Your task to perform on an android device: allow cookies in the chrome app Image 0: 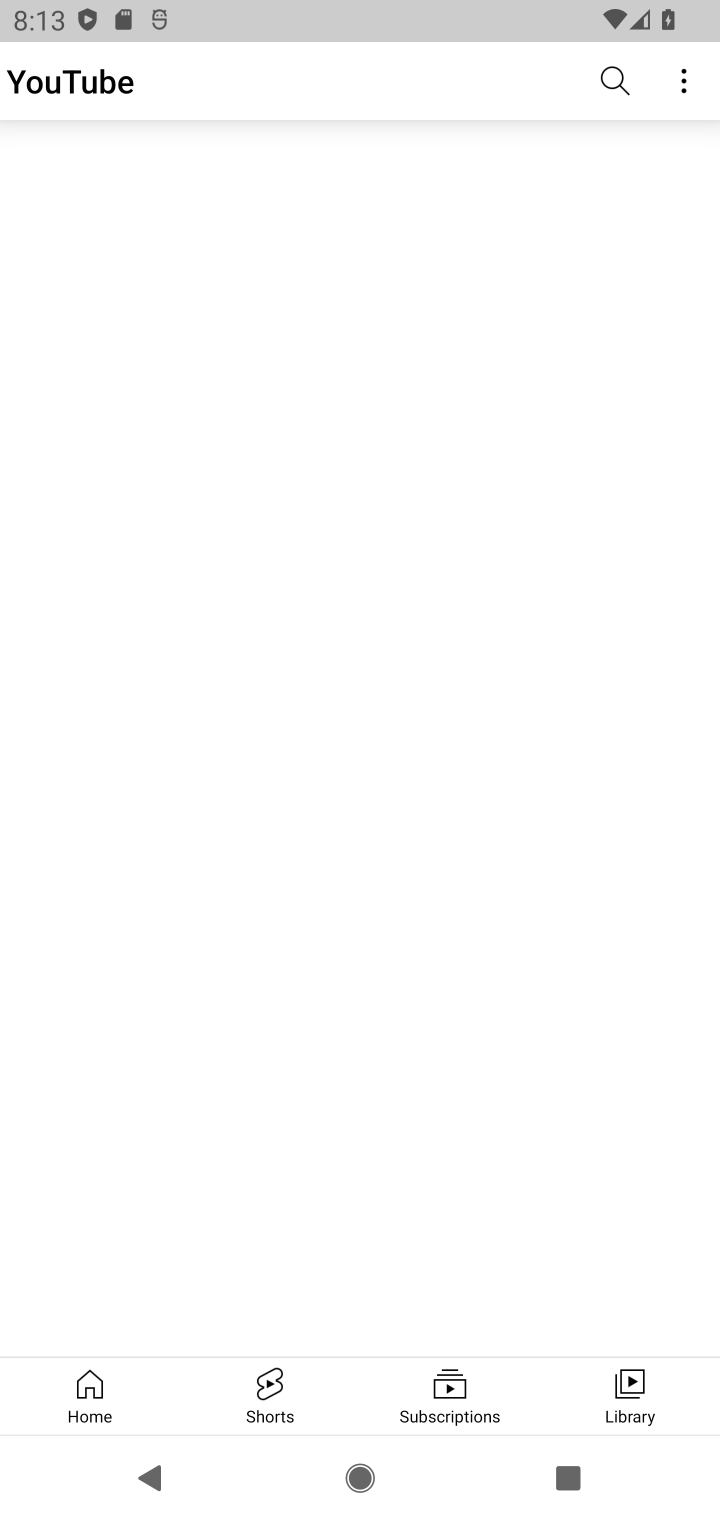
Step 0: click (433, 221)
Your task to perform on an android device: allow cookies in the chrome app Image 1: 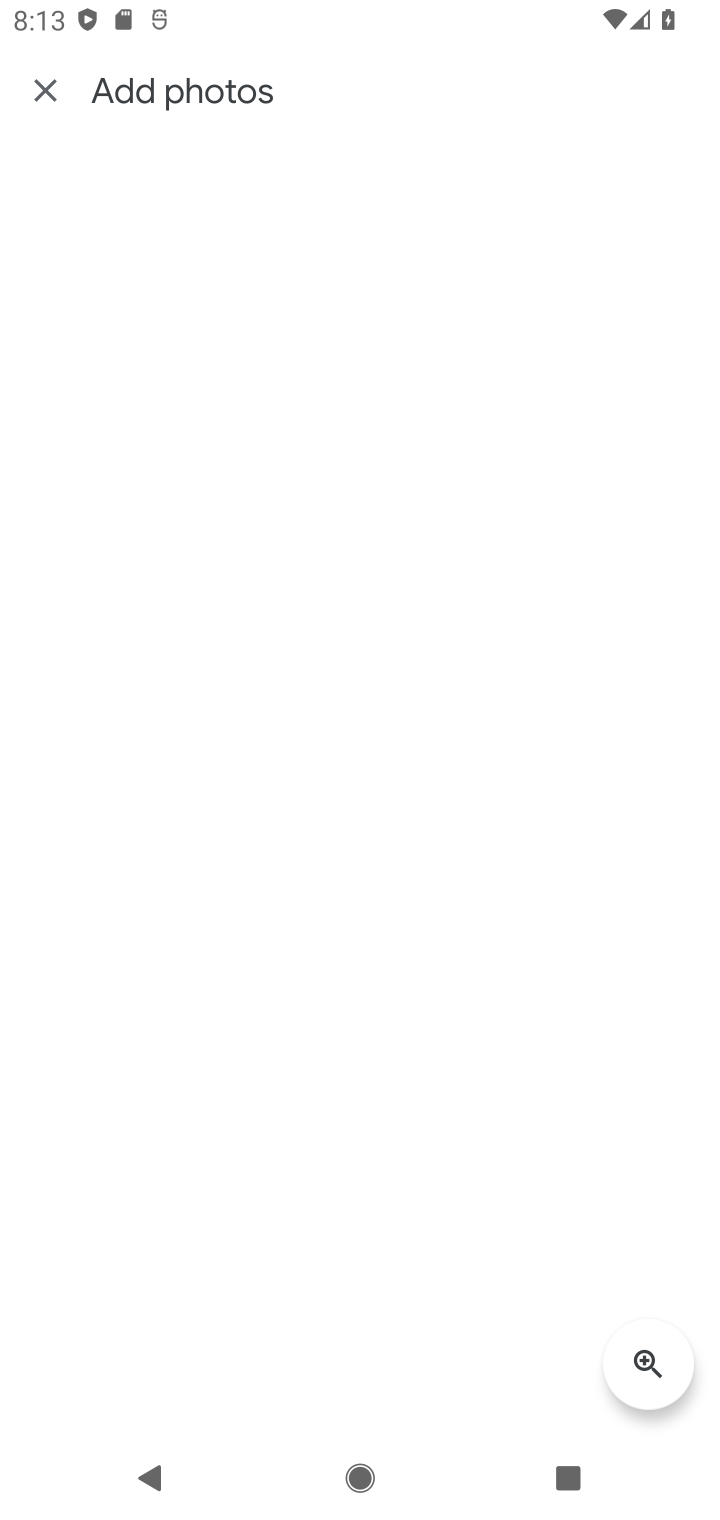
Step 1: click (398, 423)
Your task to perform on an android device: allow cookies in the chrome app Image 2: 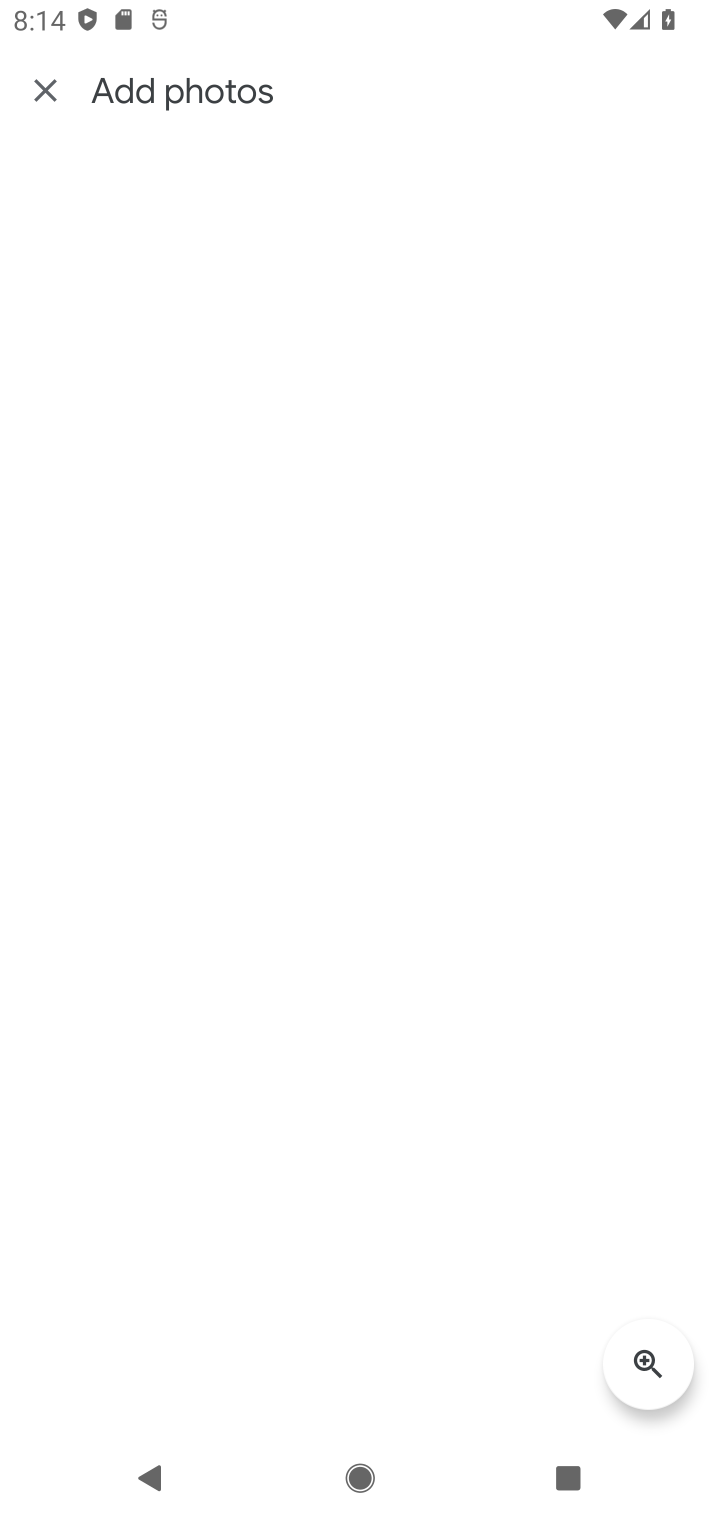
Step 2: press home button
Your task to perform on an android device: allow cookies in the chrome app Image 3: 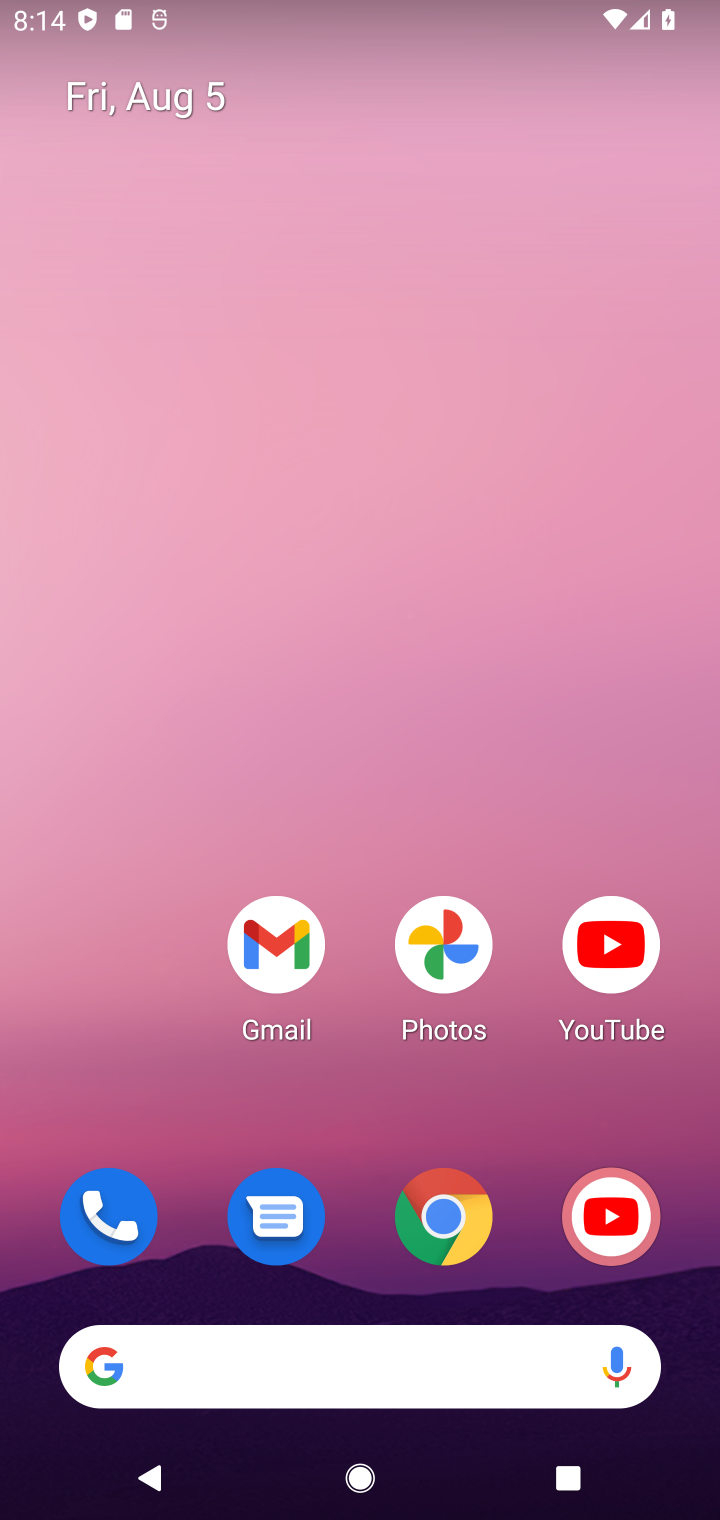
Step 3: drag from (347, 1198) to (391, 287)
Your task to perform on an android device: allow cookies in the chrome app Image 4: 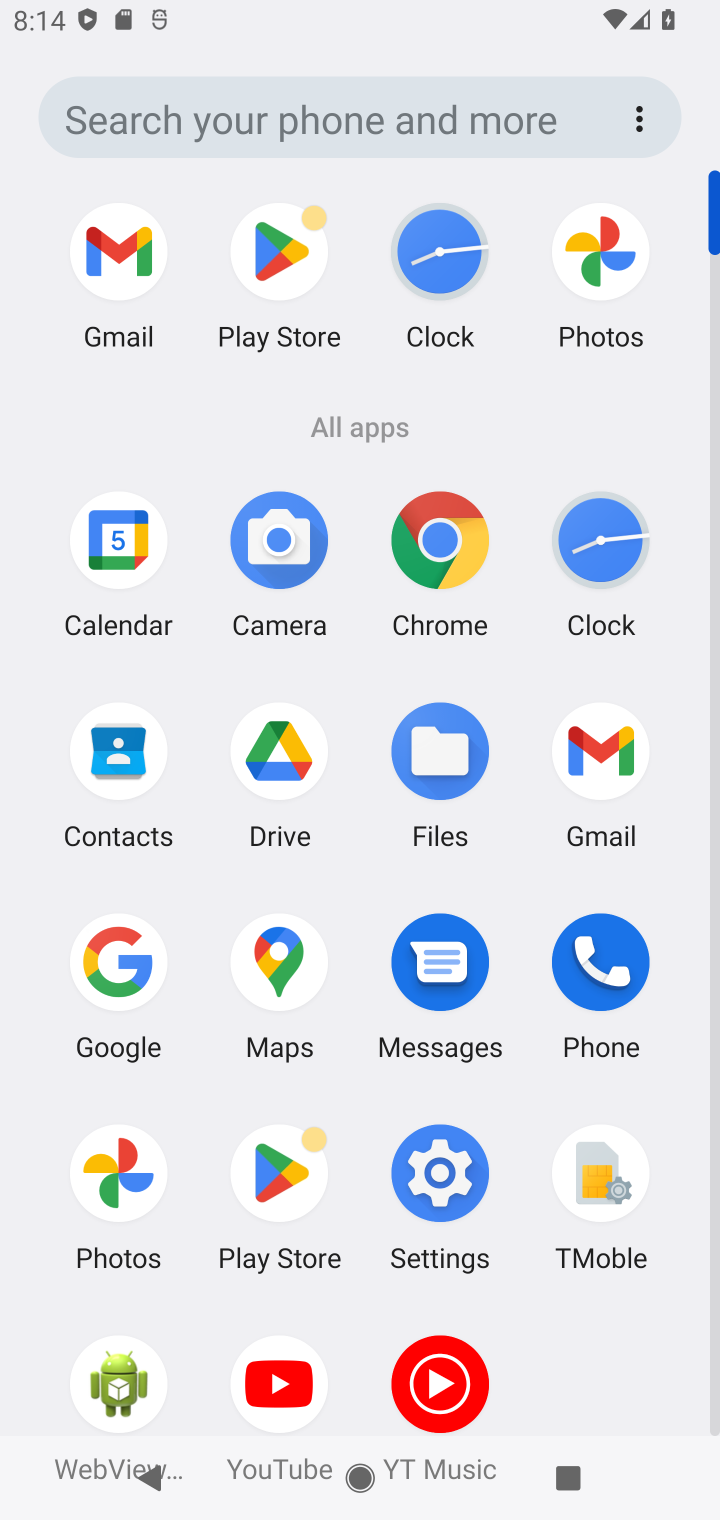
Step 4: click (431, 539)
Your task to perform on an android device: allow cookies in the chrome app Image 5: 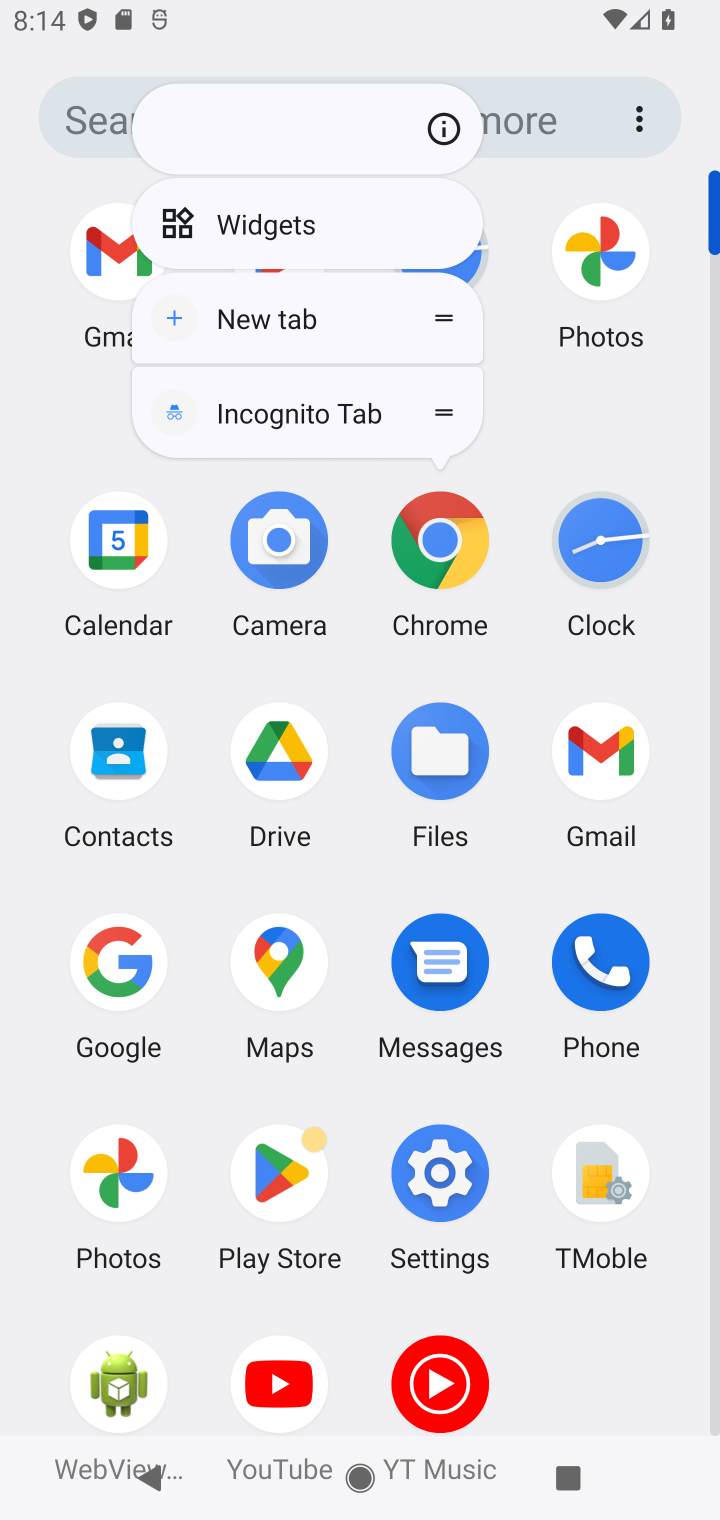
Step 5: click (446, 115)
Your task to perform on an android device: allow cookies in the chrome app Image 6: 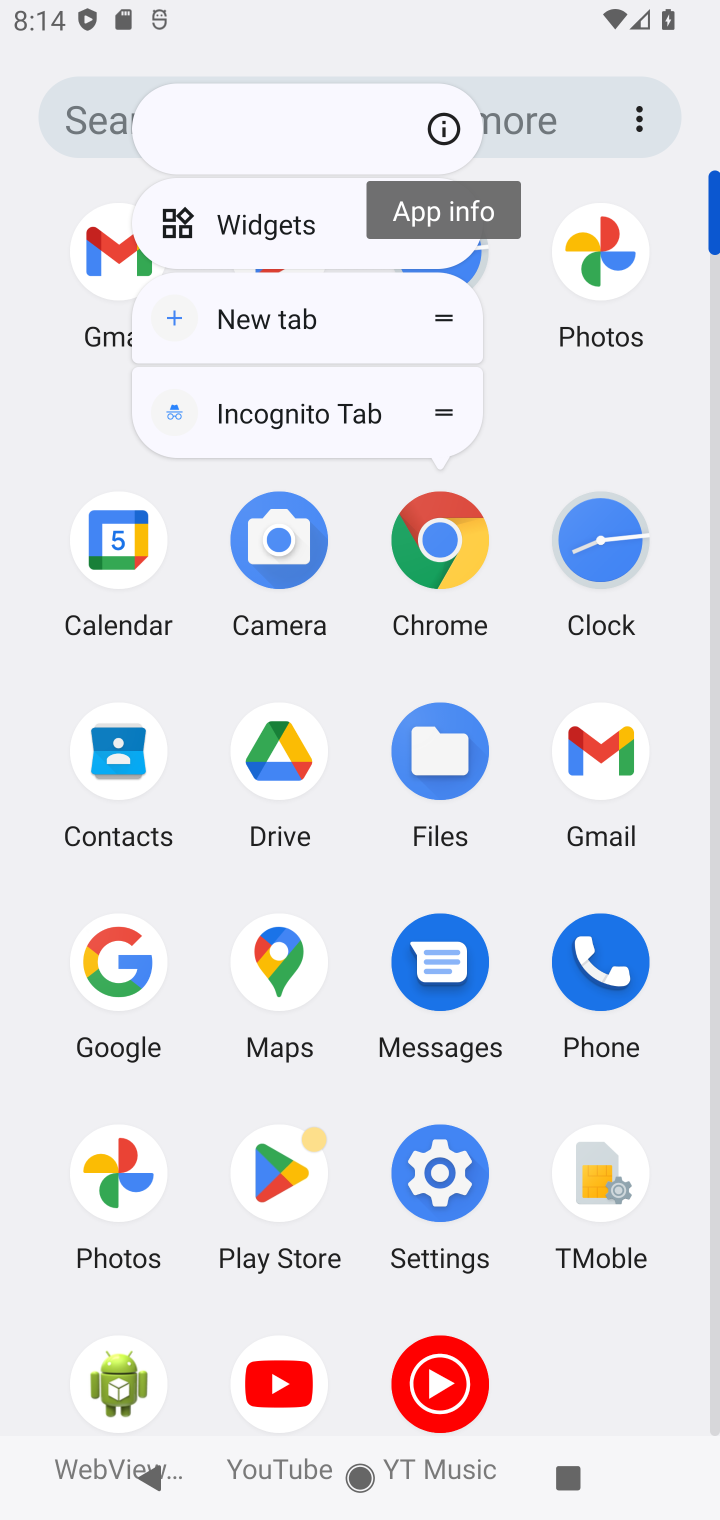
Step 6: click (446, 115)
Your task to perform on an android device: allow cookies in the chrome app Image 7: 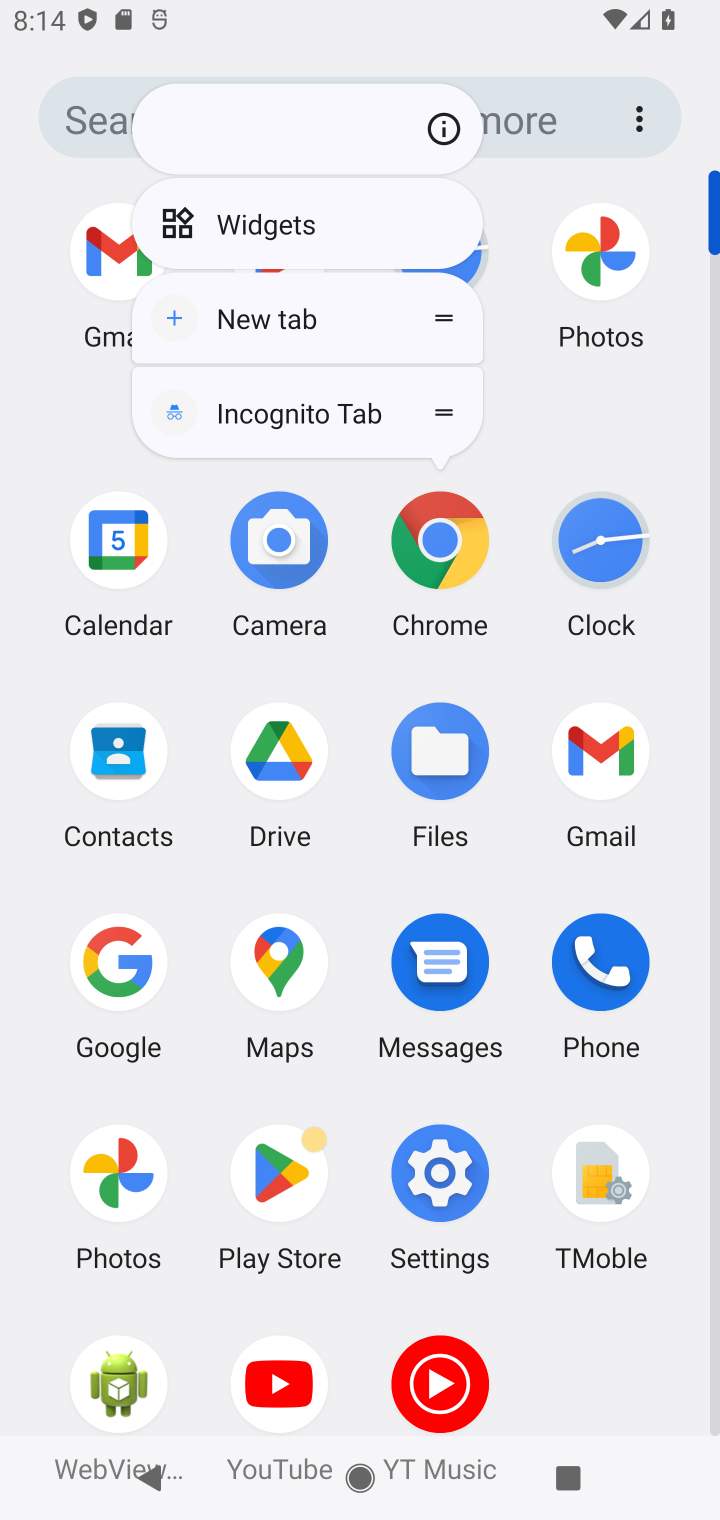
Step 7: click (441, 127)
Your task to perform on an android device: allow cookies in the chrome app Image 8: 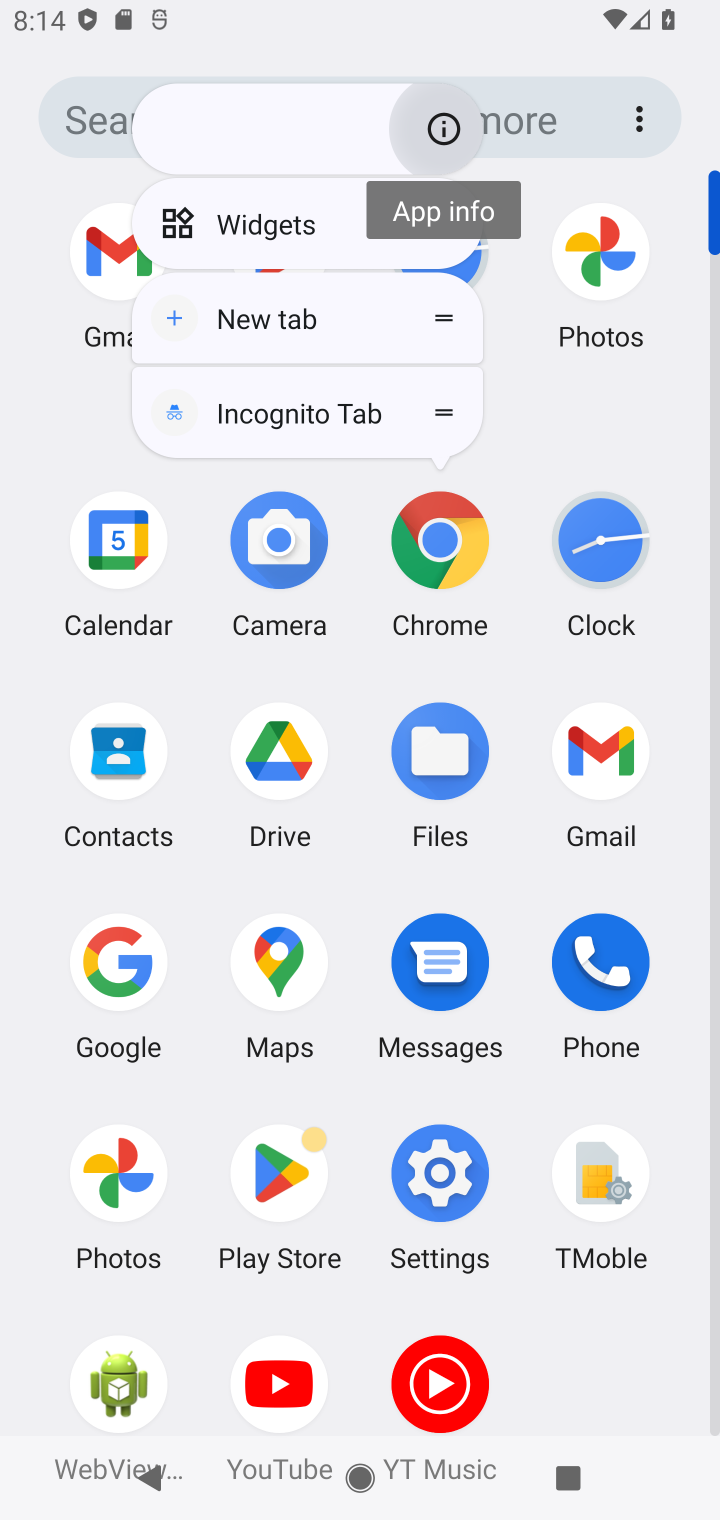
Step 8: click (441, 127)
Your task to perform on an android device: allow cookies in the chrome app Image 9: 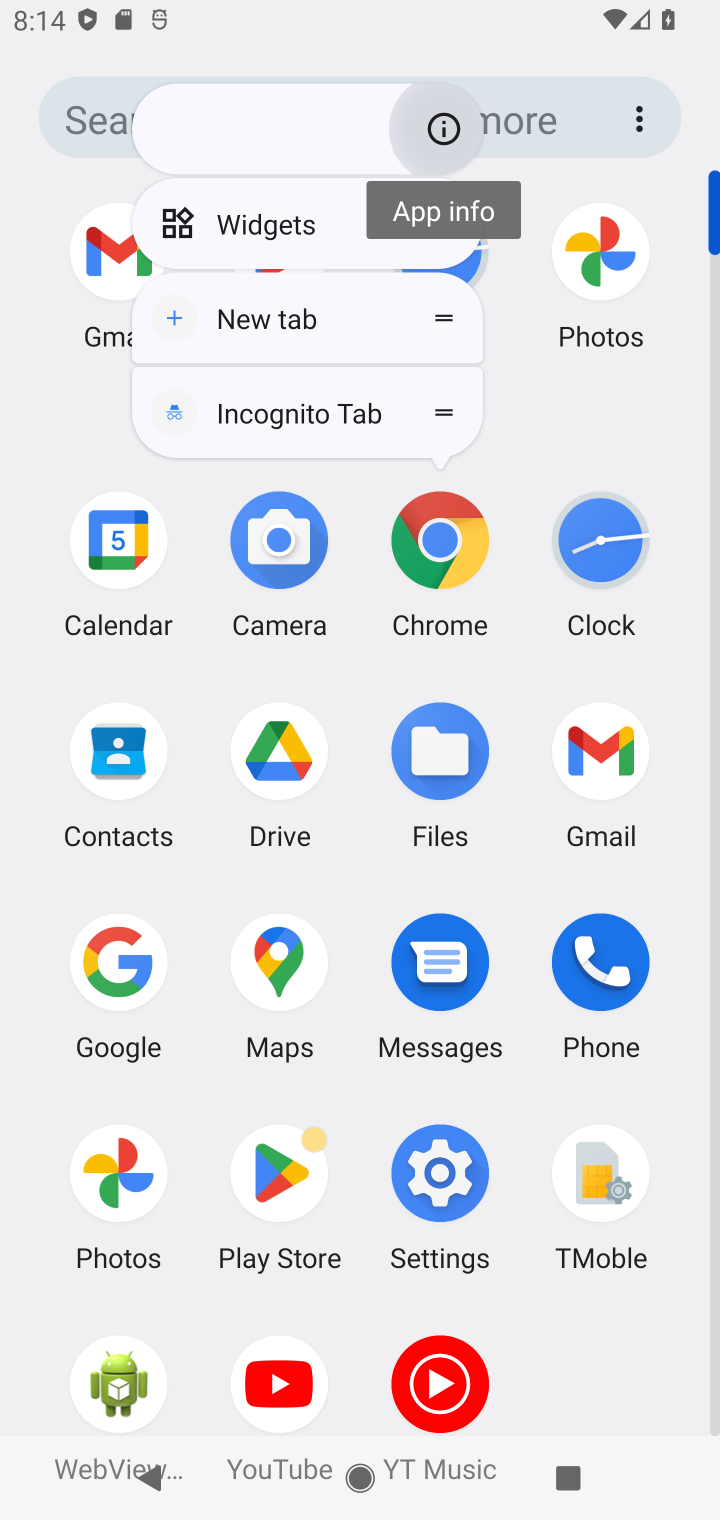
Step 9: click (426, 553)
Your task to perform on an android device: allow cookies in the chrome app Image 10: 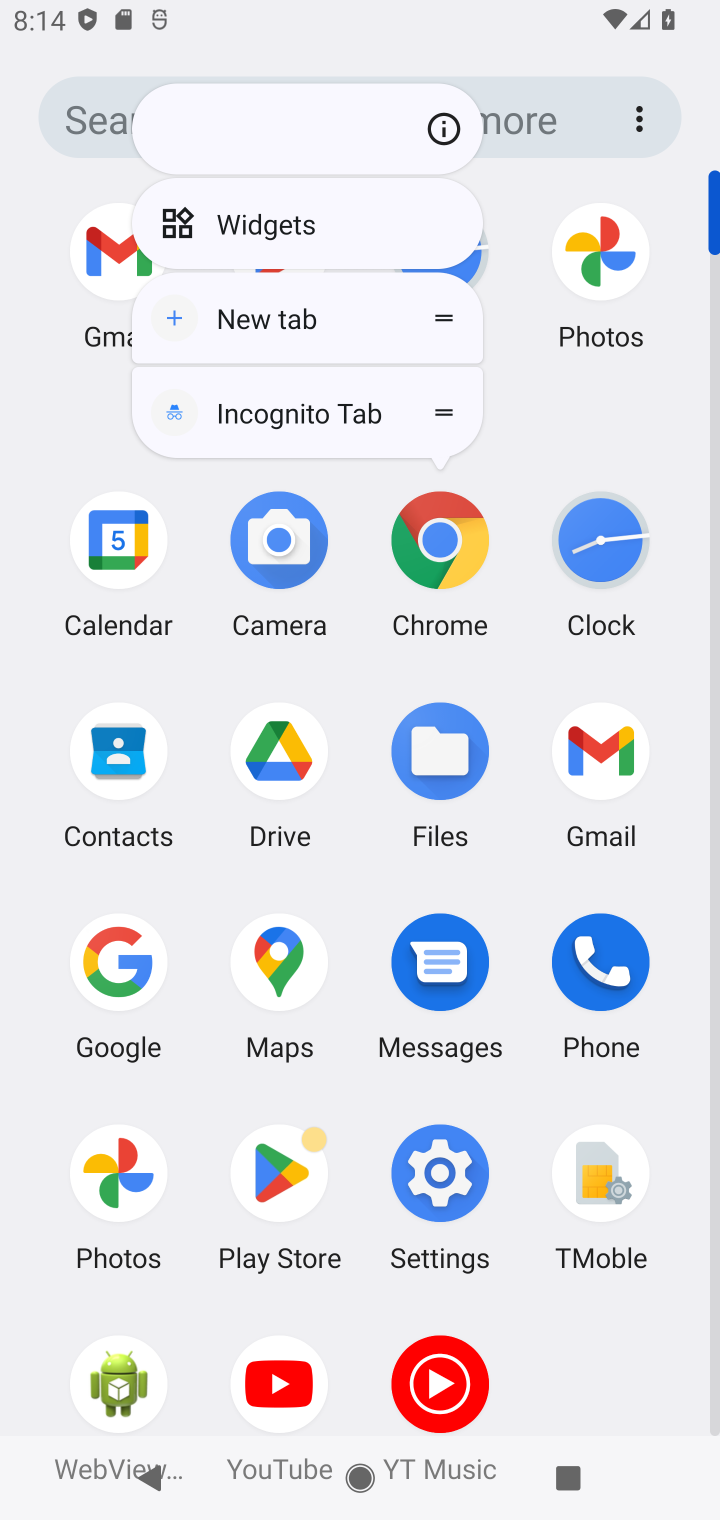
Step 10: click (426, 551)
Your task to perform on an android device: allow cookies in the chrome app Image 11: 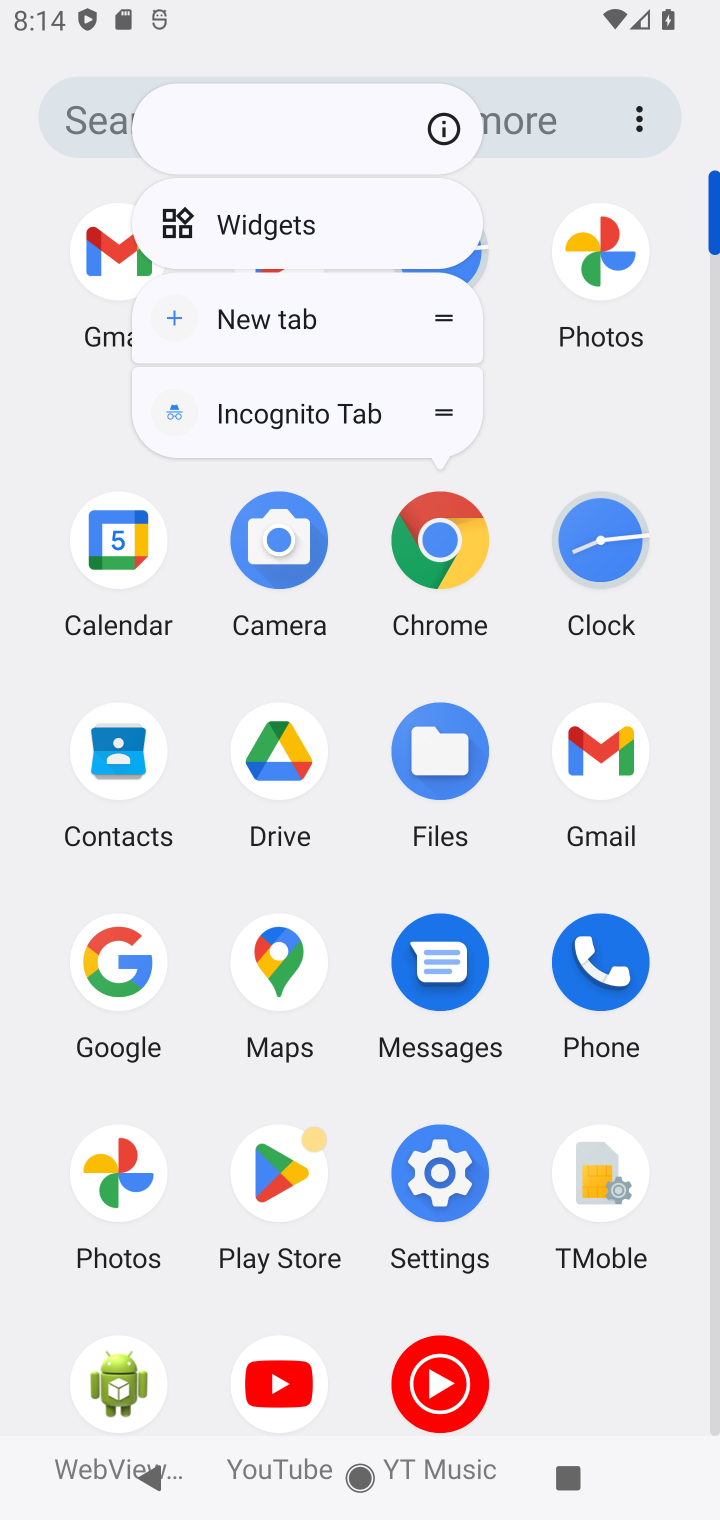
Step 11: click (432, 117)
Your task to perform on an android device: allow cookies in the chrome app Image 12: 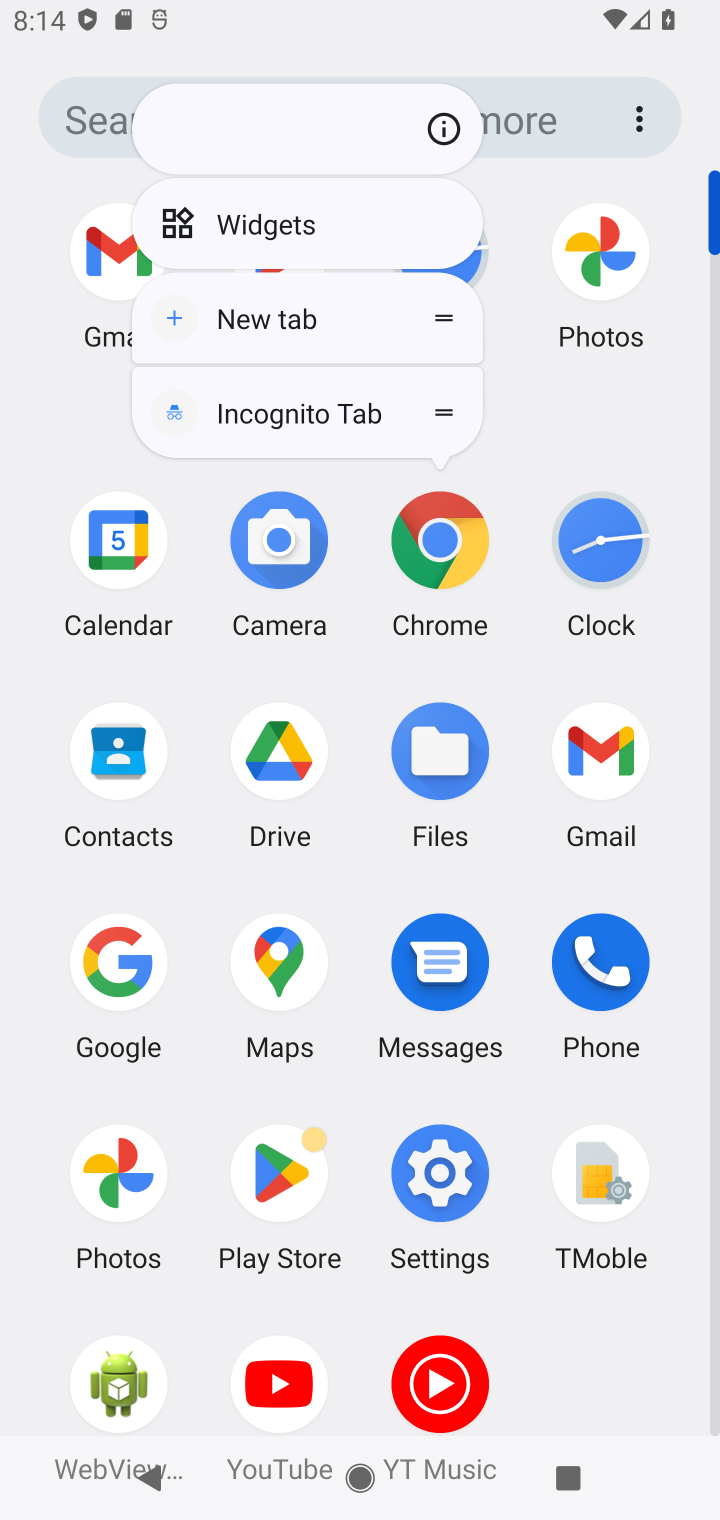
Step 12: click (473, 166)
Your task to perform on an android device: allow cookies in the chrome app Image 13: 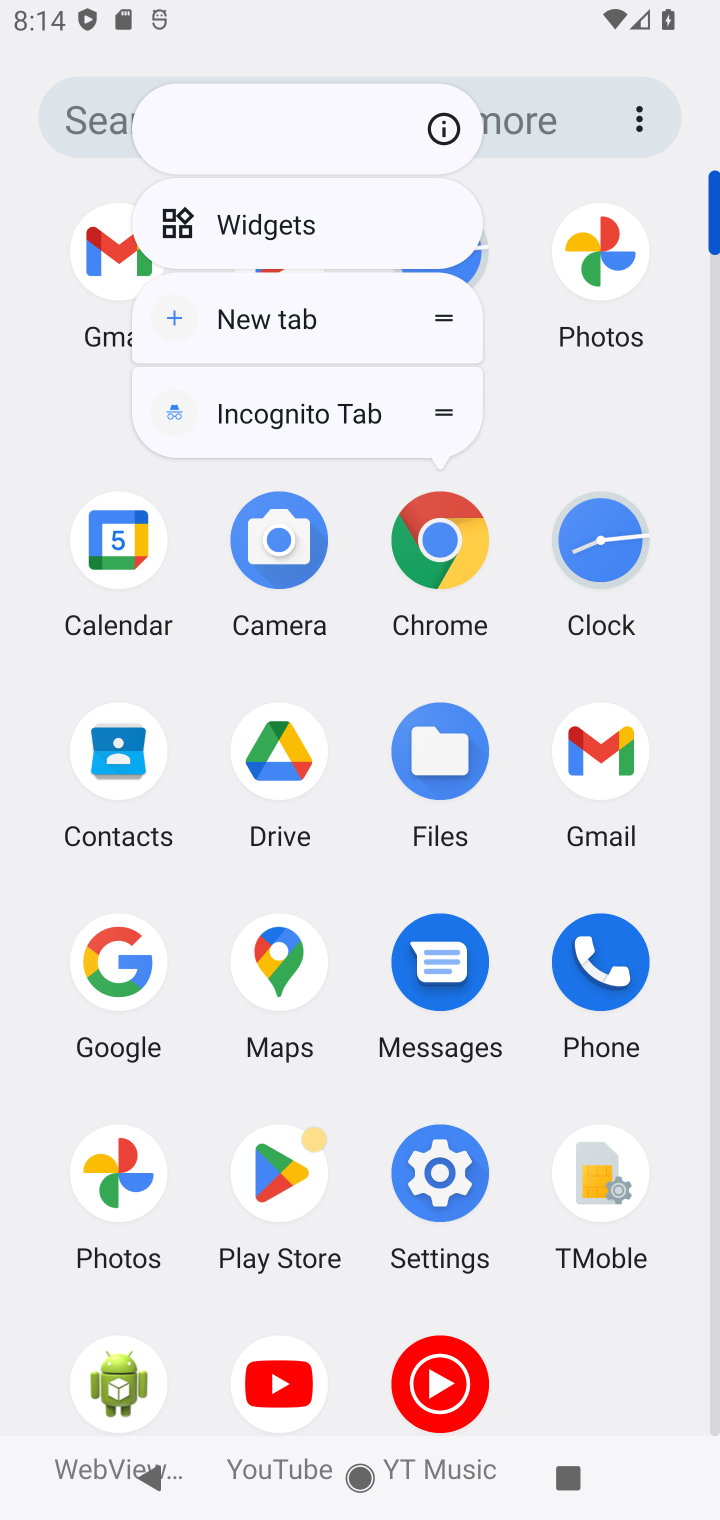
Step 13: click (447, 153)
Your task to perform on an android device: allow cookies in the chrome app Image 14: 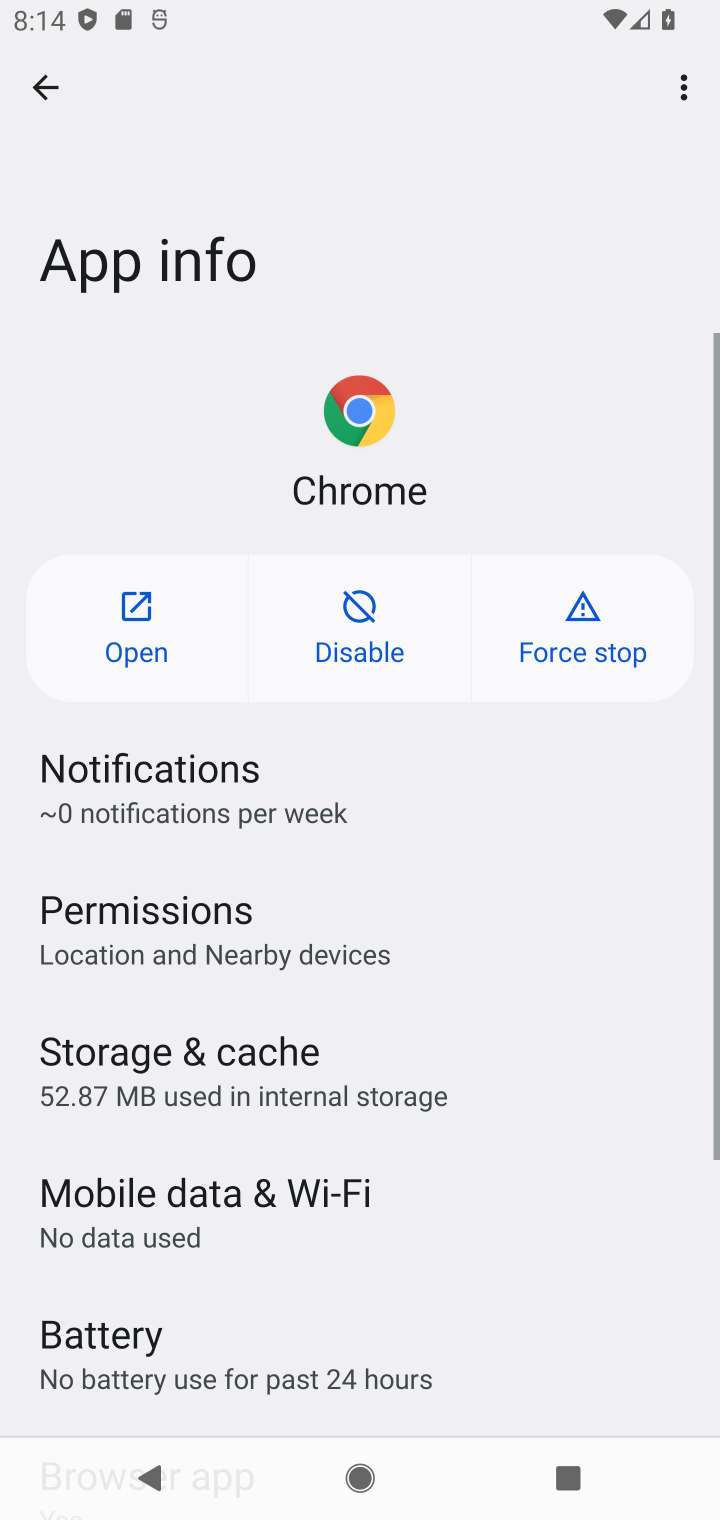
Step 14: click (143, 620)
Your task to perform on an android device: allow cookies in the chrome app Image 15: 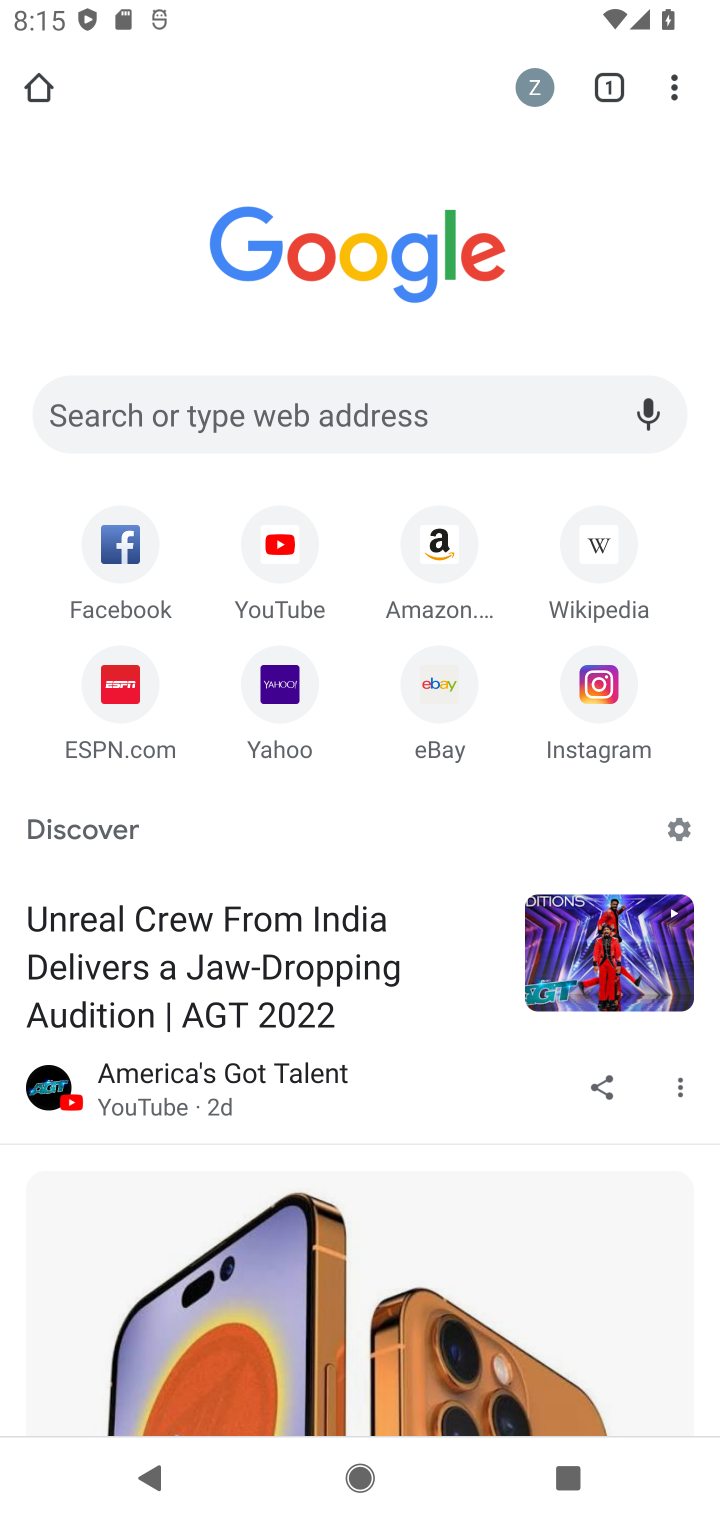
Step 15: drag from (360, 1287) to (436, 606)
Your task to perform on an android device: allow cookies in the chrome app Image 16: 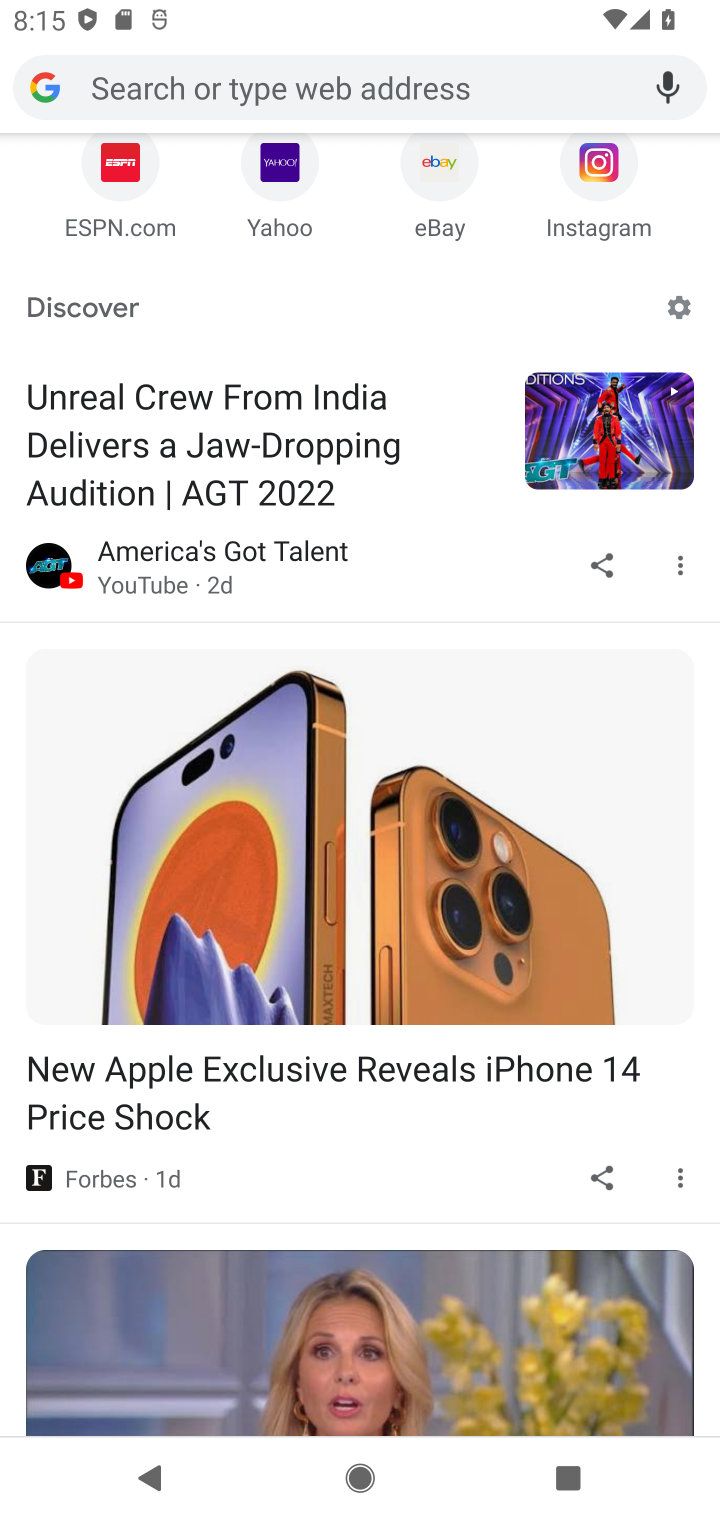
Step 16: drag from (328, 688) to (335, 1424)
Your task to perform on an android device: allow cookies in the chrome app Image 17: 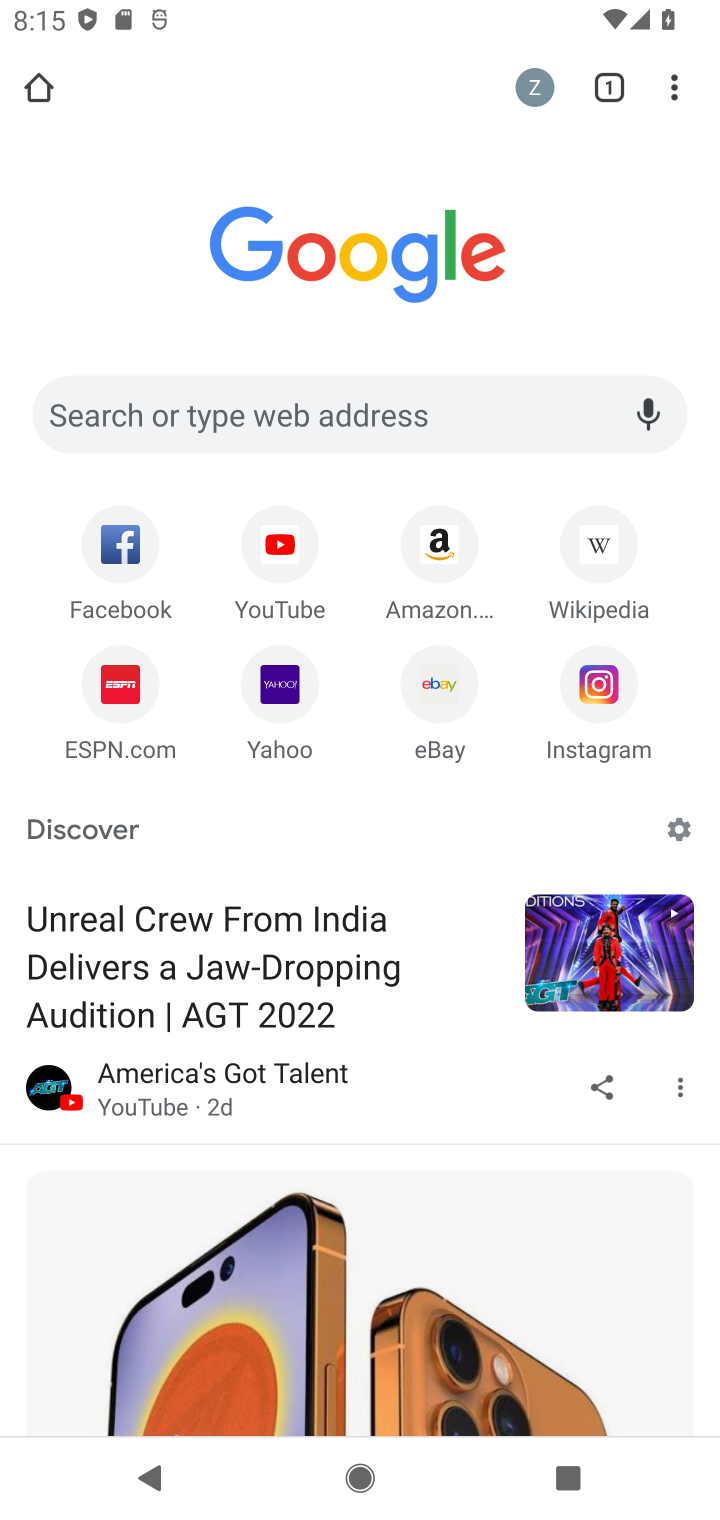
Step 17: drag from (671, 74) to (403, 770)
Your task to perform on an android device: allow cookies in the chrome app Image 18: 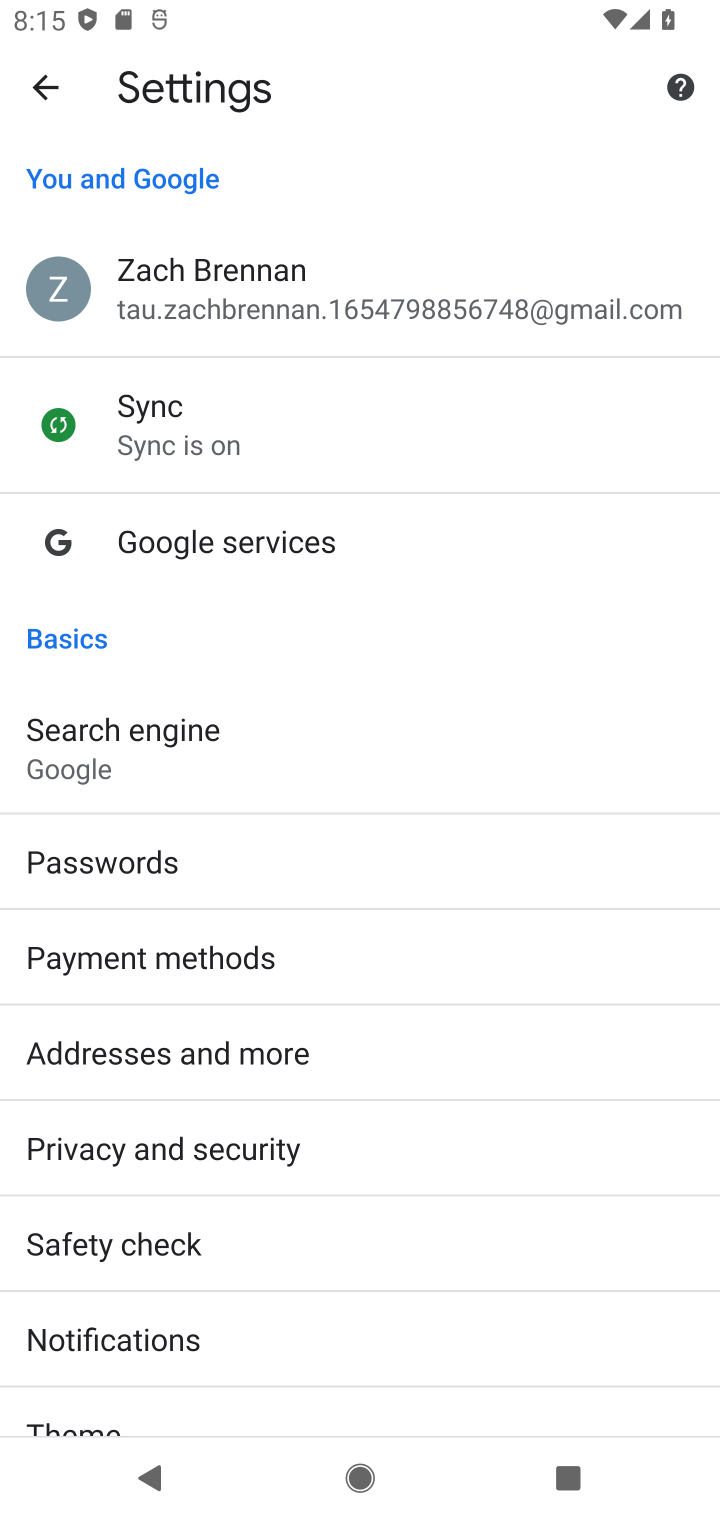
Step 18: drag from (209, 1254) to (423, 551)
Your task to perform on an android device: allow cookies in the chrome app Image 19: 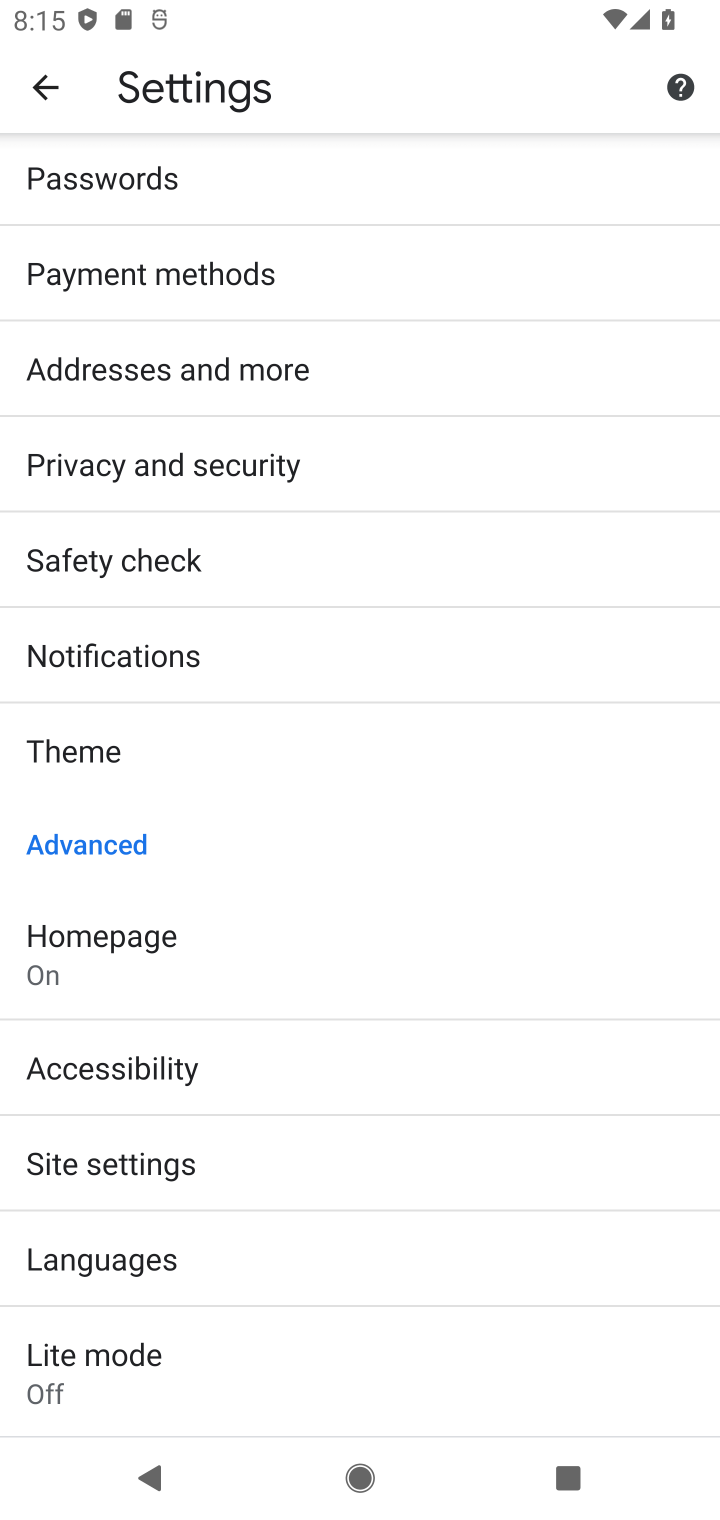
Step 19: click (101, 1163)
Your task to perform on an android device: allow cookies in the chrome app Image 20: 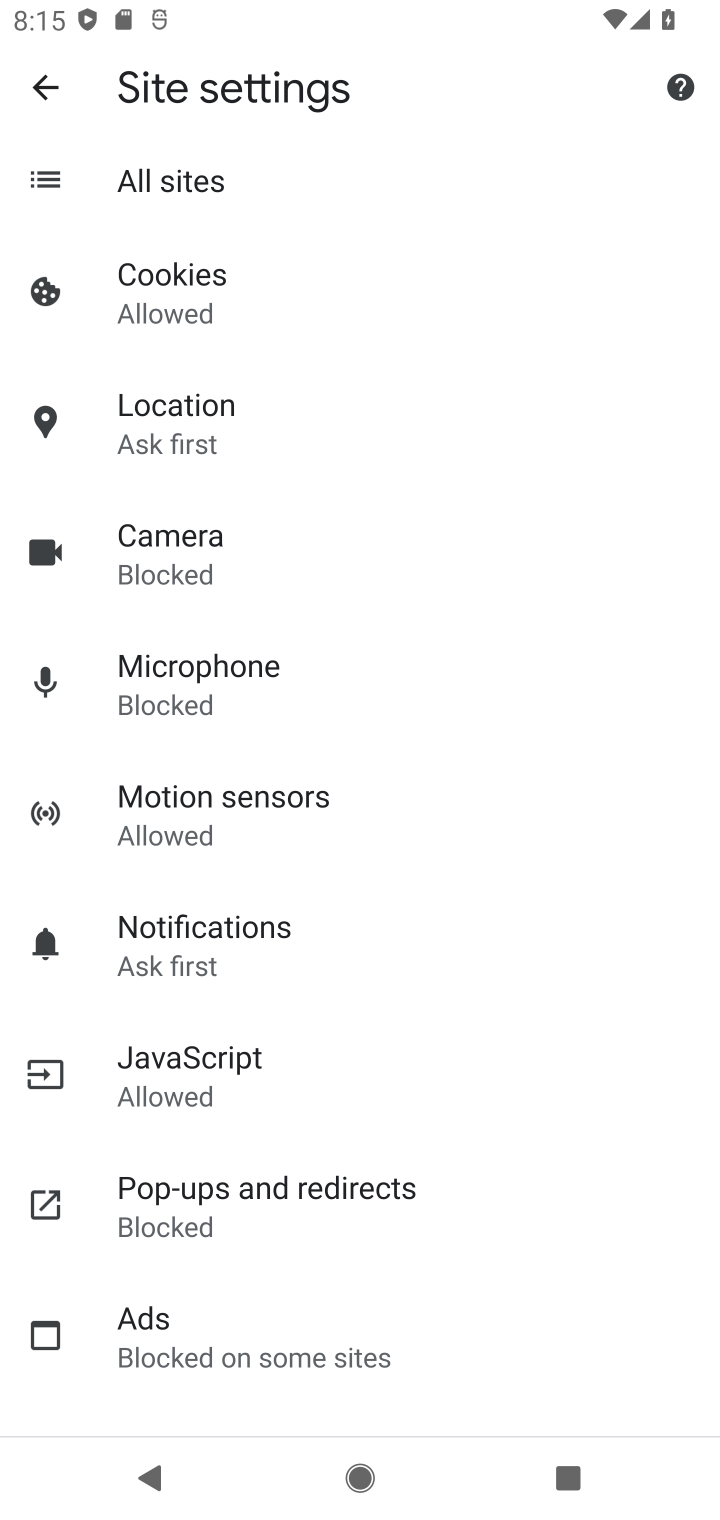
Step 20: click (235, 293)
Your task to perform on an android device: allow cookies in the chrome app Image 21: 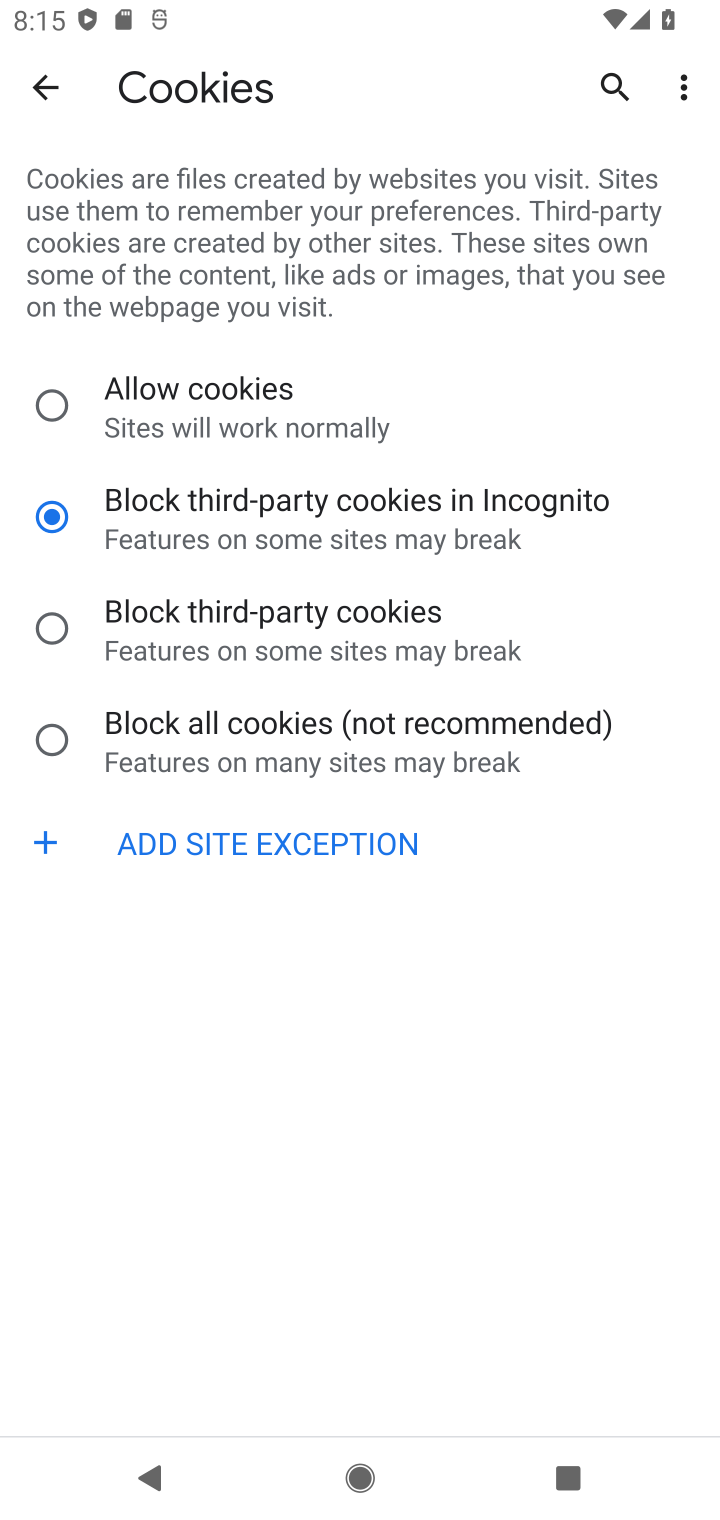
Step 21: click (163, 400)
Your task to perform on an android device: allow cookies in the chrome app Image 22: 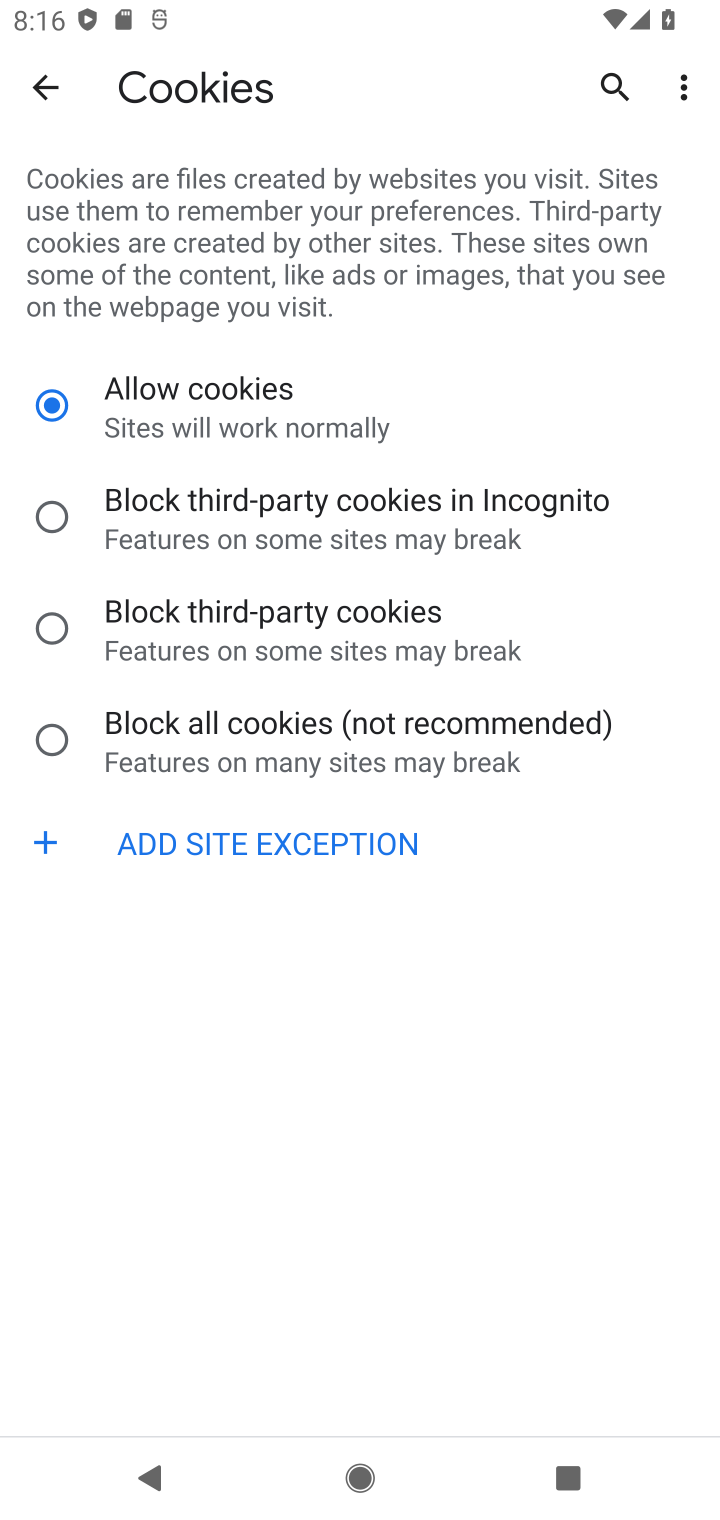
Step 22: task complete